Your task to perform on an android device: add a label to a message in the gmail app Image 0: 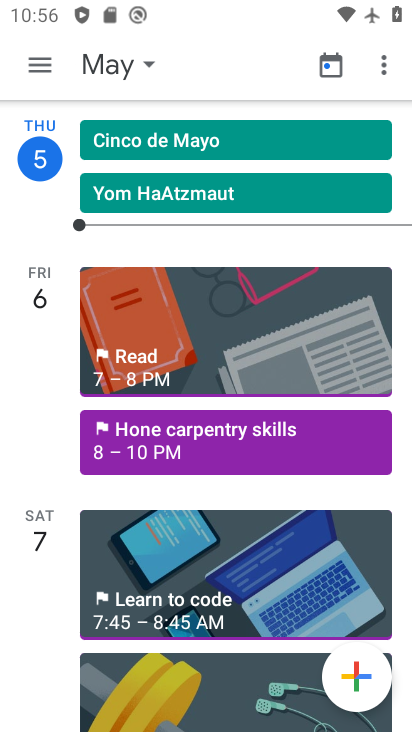
Step 0: press back button
Your task to perform on an android device: add a label to a message in the gmail app Image 1: 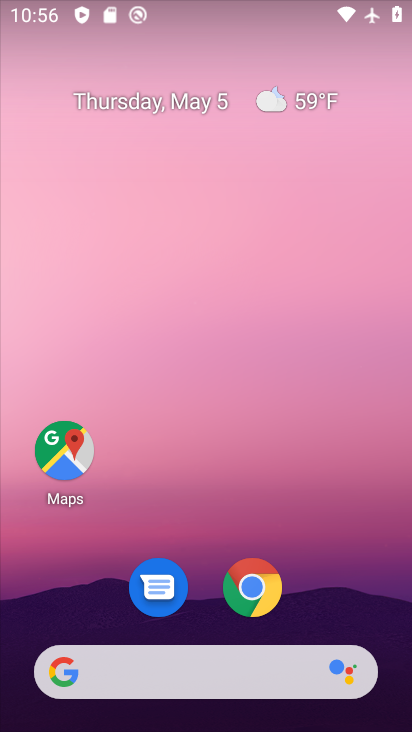
Step 1: drag from (350, 581) to (261, 40)
Your task to perform on an android device: add a label to a message in the gmail app Image 2: 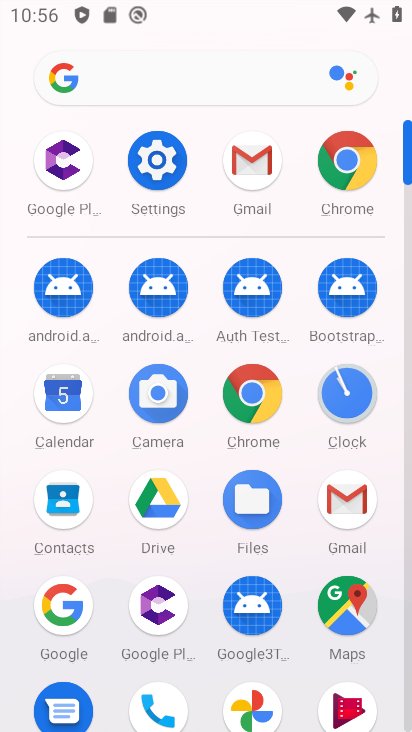
Step 2: drag from (19, 606) to (6, 243)
Your task to perform on an android device: add a label to a message in the gmail app Image 3: 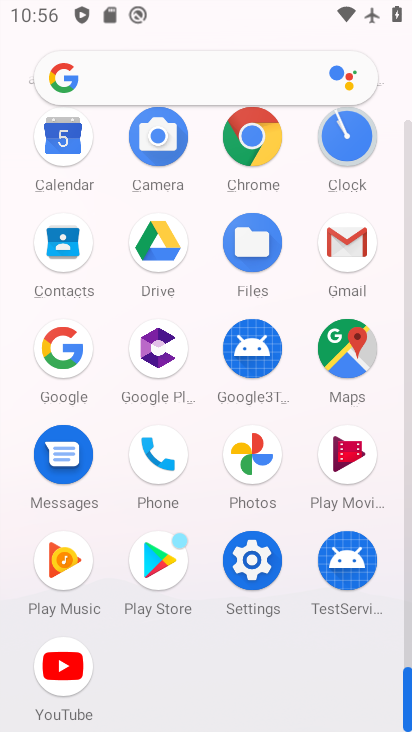
Step 3: click (345, 234)
Your task to perform on an android device: add a label to a message in the gmail app Image 4: 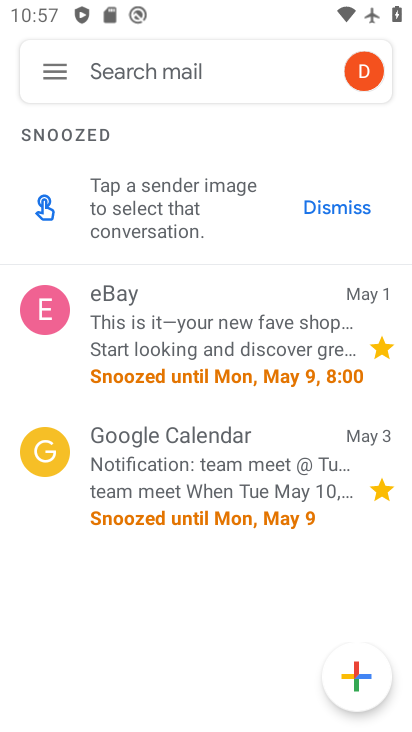
Step 4: click (212, 306)
Your task to perform on an android device: add a label to a message in the gmail app Image 5: 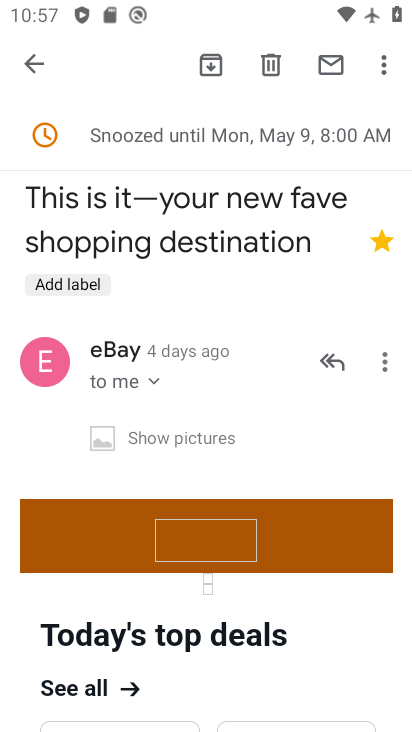
Step 5: click (383, 65)
Your task to perform on an android device: add a label to a message in the gmail app Image 6: 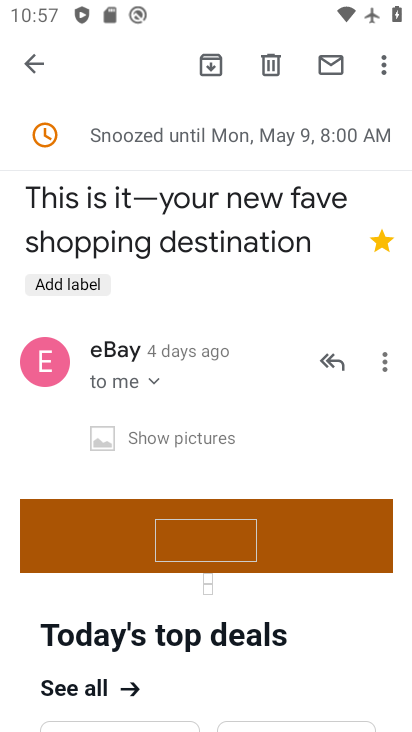
Step 6: click (385, 61)
Your task to perform on an android device: add a label to a message in the gmail app Image 7: 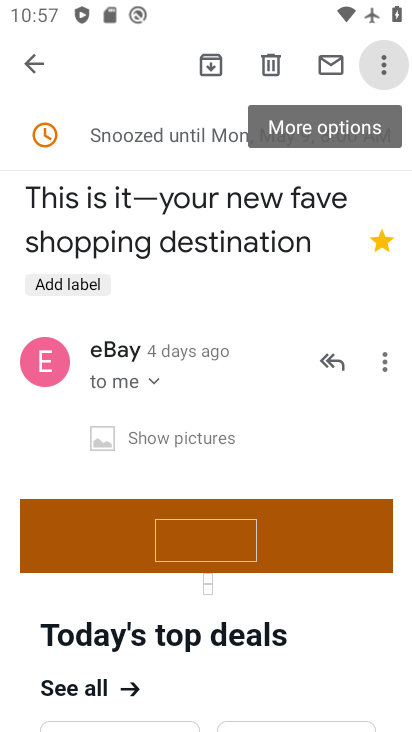
Step 7: click (382, 66)
Your task to perform on an android device: add a label to a message in the gmail app Image 8: 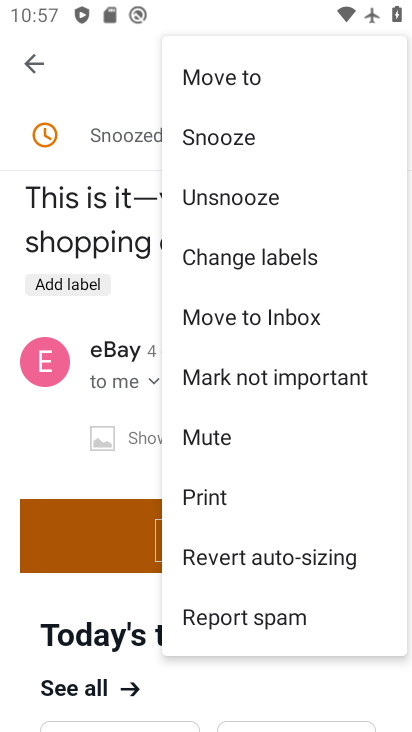
Step 8: click (300, 313)
Your task to perform on an android device: add a label to a message in the gmail app Image 9: 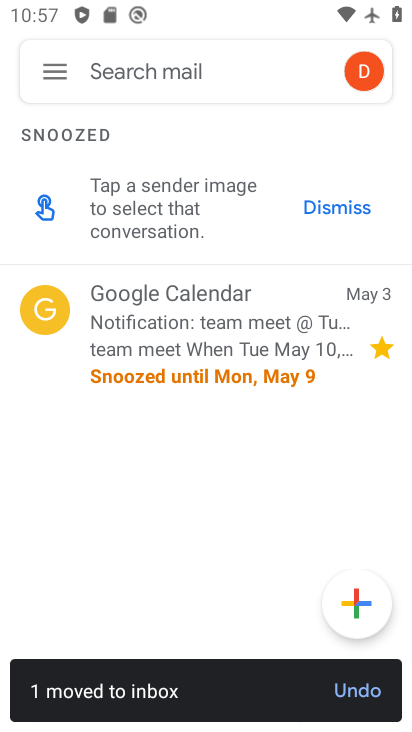
Step 9: task complete